Your task to perform on an android device: turn off javascript in the chrome app Image 0: 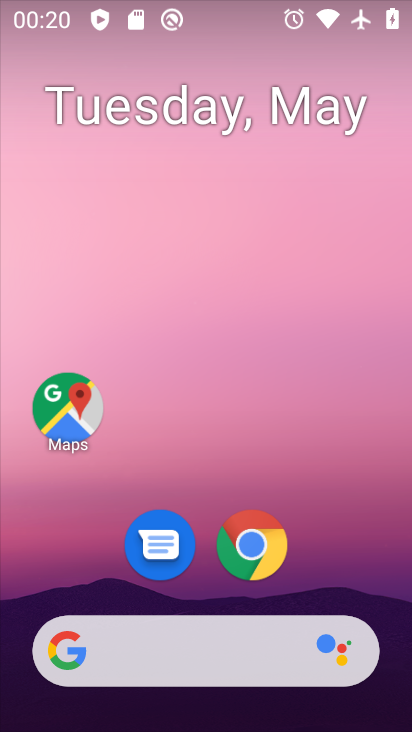
Step 0: click (264, 530)
Your task to perform on an android device: turn off javascript in the chrome app Image 1: 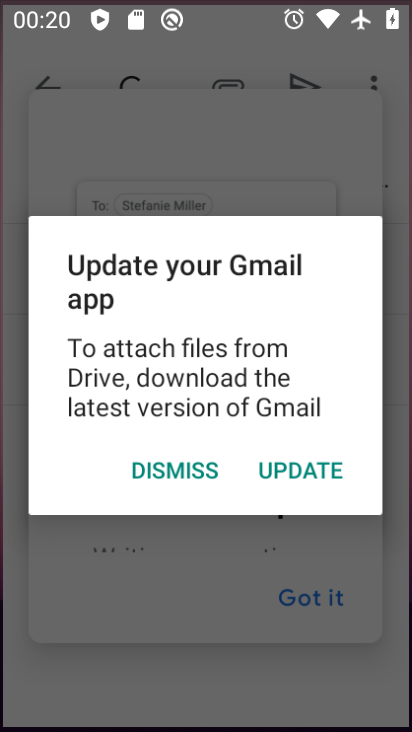
Step 1: click (249, 543)
Your task to perform on an android device: turn off javascript in the chrome app Image 2: 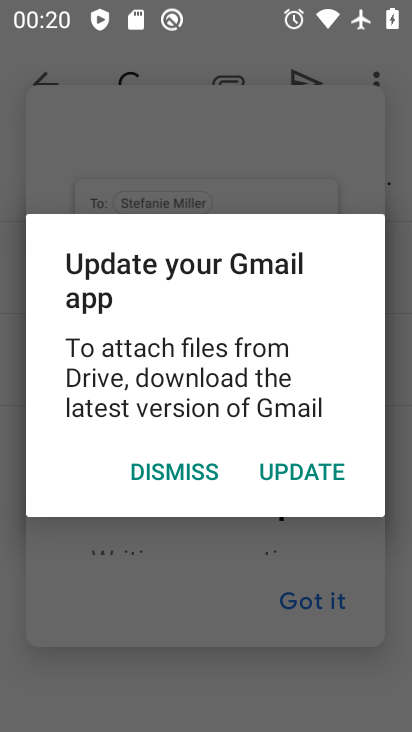
Step 2: press back button
Your task to perform on an android device: turn off javascript in the chrome app Image 3: 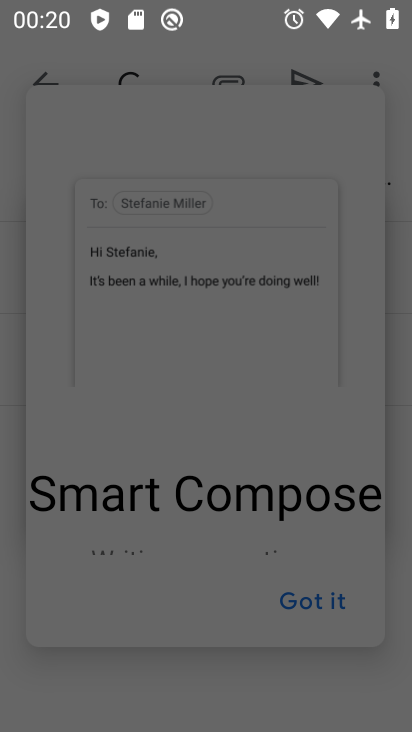
Step 3: press home button
Your task to perform on an android device: turn off javascript in the chrome app Image 4: 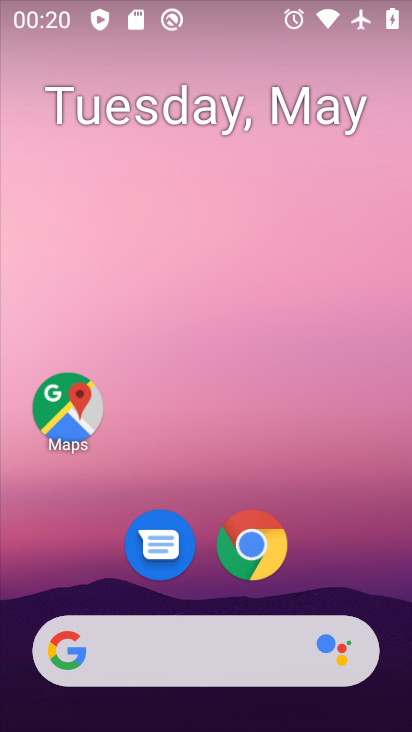
Step 4: click (254, 537)
Your task to perform on an android device: turn off javascript in the chrome app Image 5: 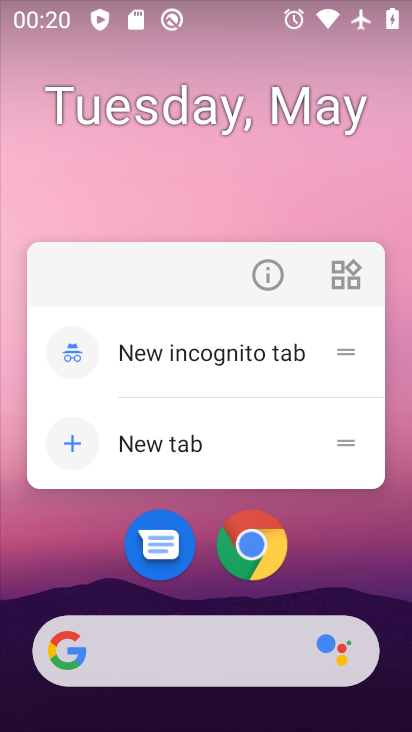
Step 5: click (255, 498)
Your task to perform on an android device: turn off javascript in the chrome app Image 6: 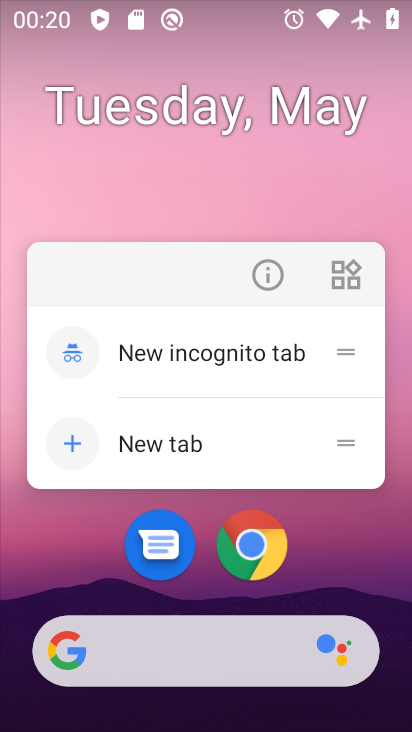
Step 6: click (233, 523)
Your task to perform on an android device: turn off javascript in the chrome app Image 7: 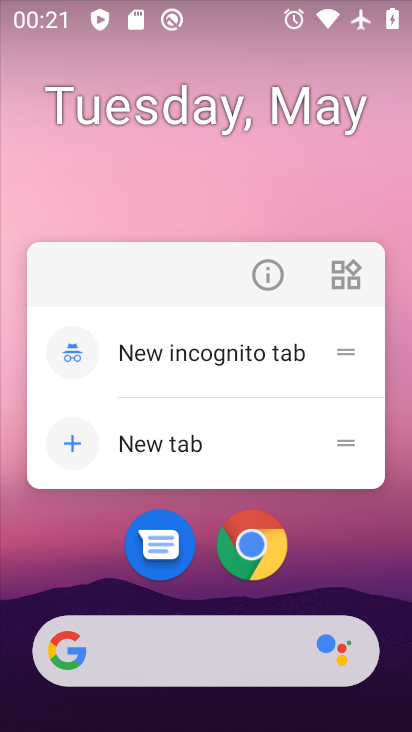
Step 7: click (235, 516)
Your task to perform on an android device: turn off javascript in the chrome app Image 8: 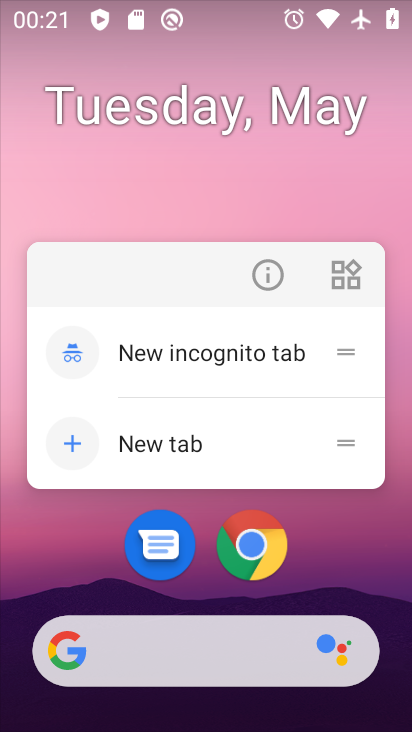
Step 8: click (235, 514)
Your task to perform on an android device: turn off javascript in the chrome app Image 9: 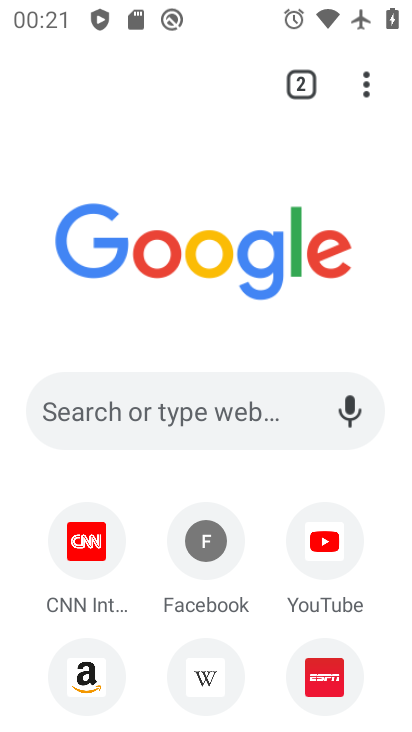
Step 9: click (367, 86)
Your task to perform on an android device: turn off javascript in the chrome app Image 10: 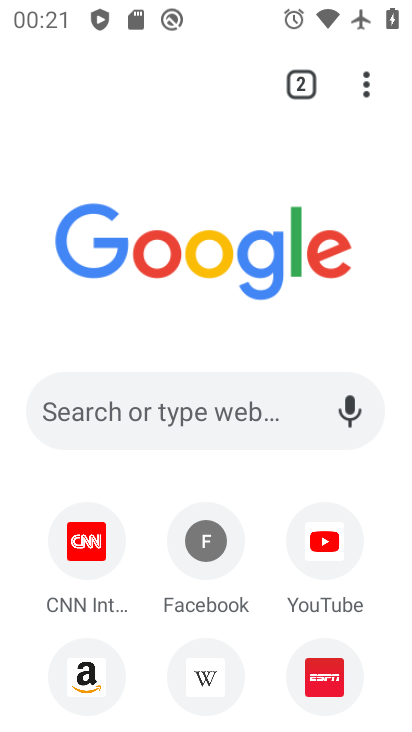
Step 10: click (367, 89)
Your task to perform on an android device: turn off javascript in the chrome app Image 11: 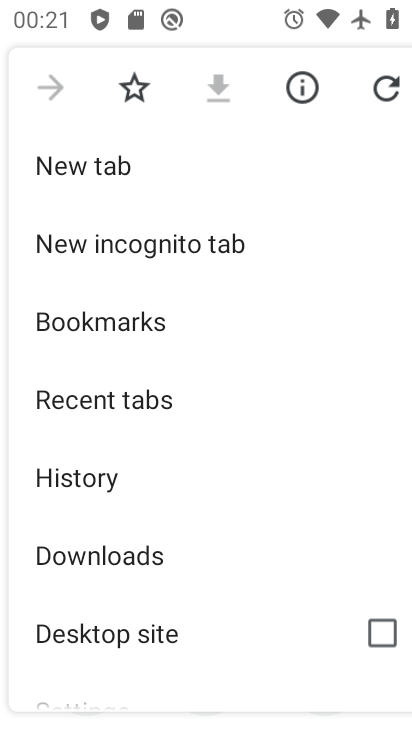
Step 11: drag from (86, 628) to (114, 217)
Your task to perform on an android device: turn off javascript in the chrome app Image 12: 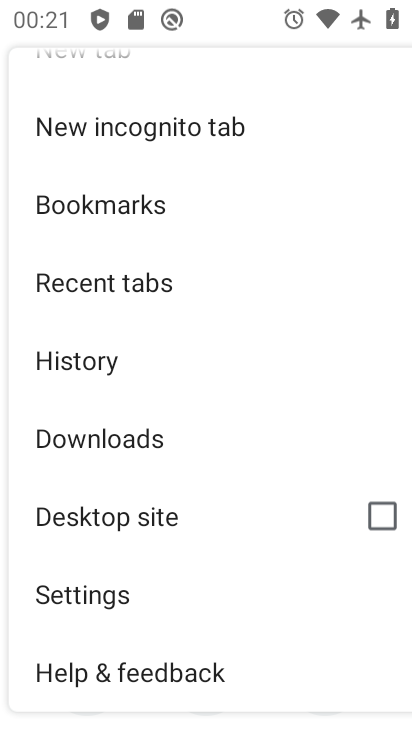
Step 12: click (72, 575)
Your task to perform on an android device: turn off javascript in the chrome app Image 13: 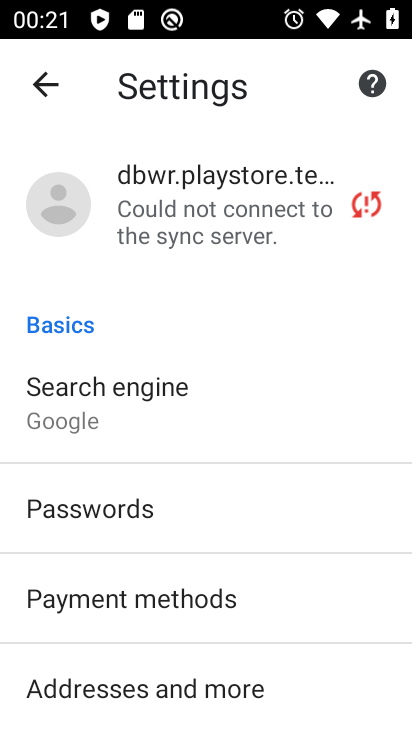
Step 13: drag from (149, 641) to (175, 441)
Your task to perform on an android device: turn off javascript in the chrome app Image 14: 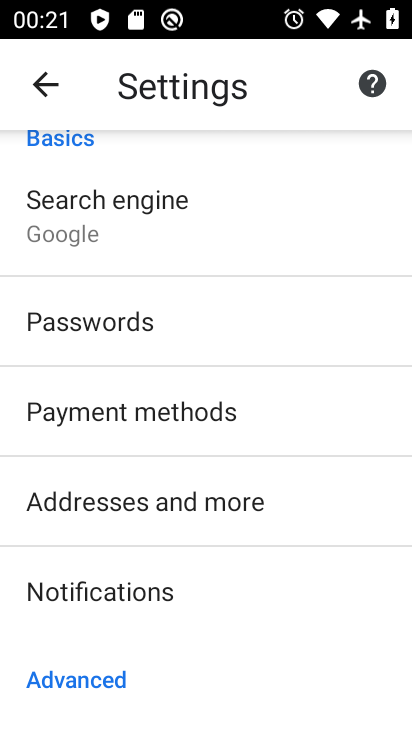
Step 14: drag from (142, 652) to (150, 490)
Your task to perform on an android device: turn off javascript in the chrome app Image 15: 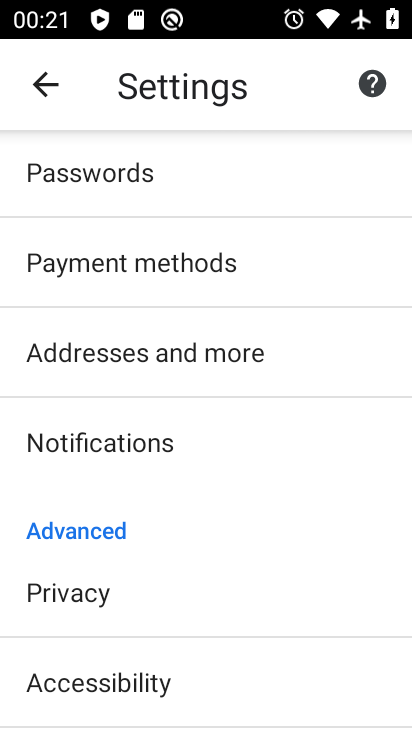
Step 15: drag from (140, 629) to (180, 424)
Your task to perform on an android device: turn off javascript in the chrome app Image 16: 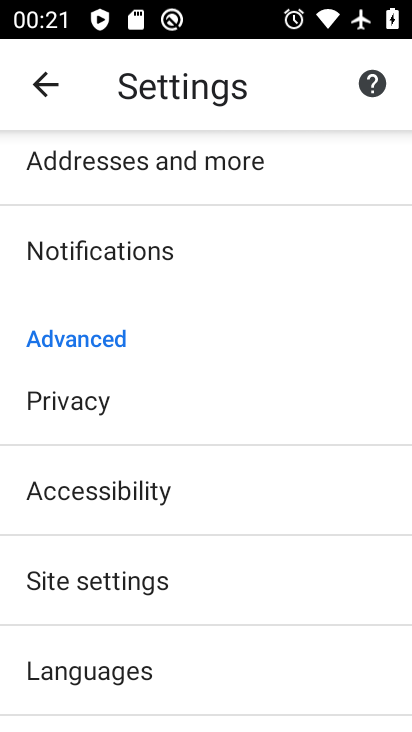
Step 16: drag from (180, 618) to (179, 410)
Your task to perform on an android device: turn off javascript in the chrome app Image 17: 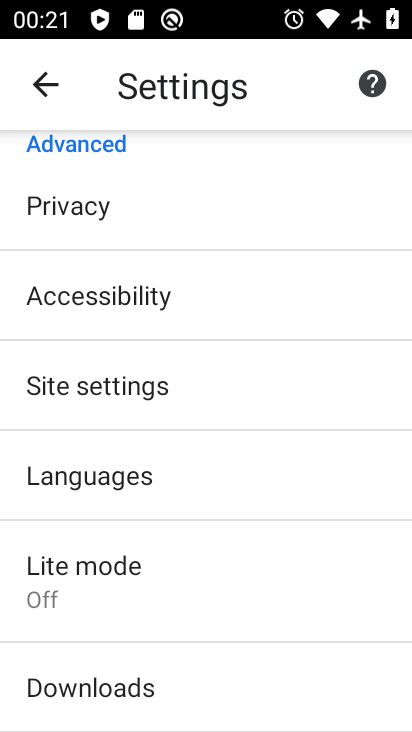
Step 17: click (153, 386)
Your task to perform on an android device: turn off javascript in the chrome app Image 18: 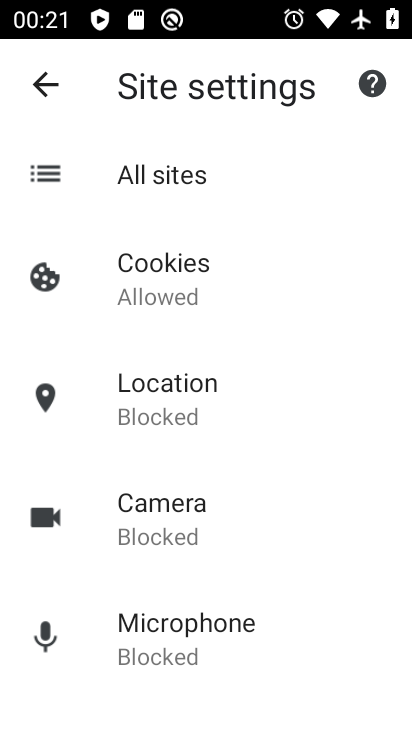
Step 18: drag from (172, 641) to (189, 520)
Your task to perform on an android device: turn off javascript in the chrome app Image 19: 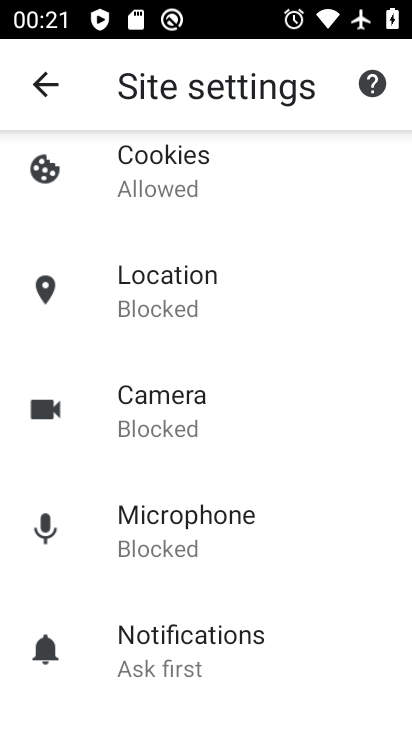
Step 19: drag from (181, 638) to (182, 507)
Your task to perform on an android device: turn off javascript in the chrome app Image 20: 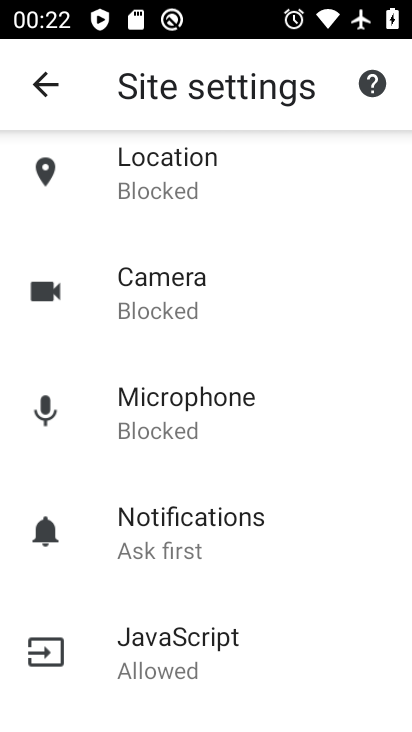
Step 20: click (221, 639)
Your task to perform on an android device: turn off javascript in the chrome app Image 21: 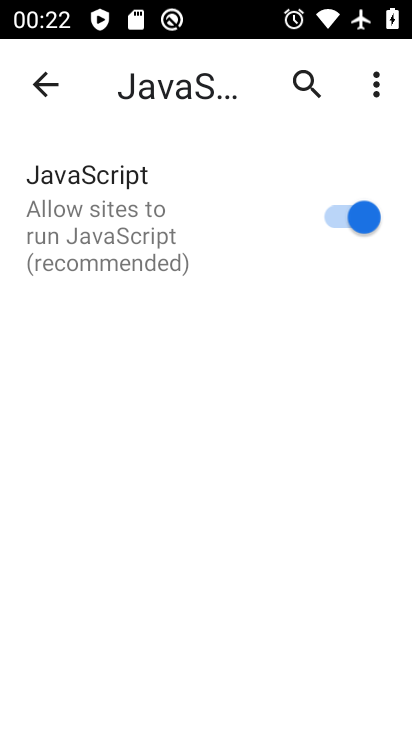
Step 21: click (221, 641)
Your task to perform on an android device: turn off javascript in the chrome app Image 22: 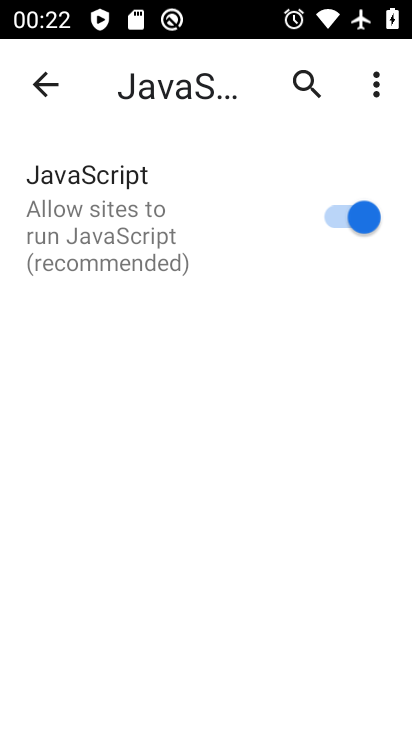
Step 22: click (343, 205)
Your task to perform on an android device: turn off javascript in the chrome app Image 23: 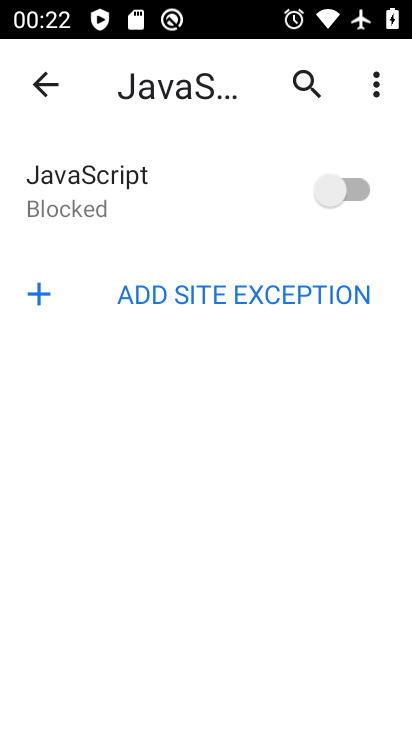
Step 23: task complete